Your task to perform on an android device: uninstall "Duolingo: language lessons" Image 0: 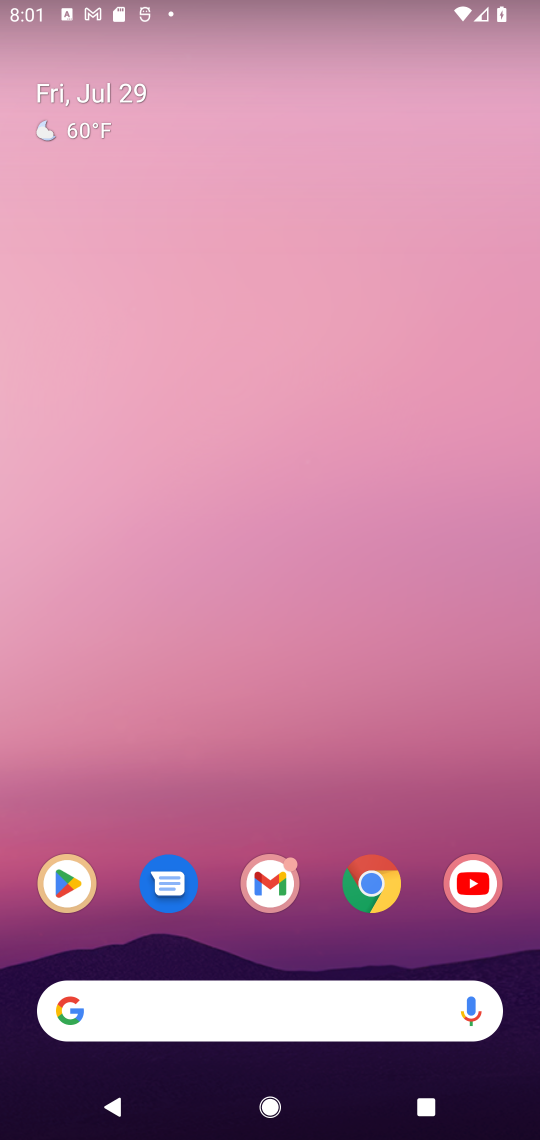
Step 0: click (69, 875)
Your task to perform on an android device: uninstall "Duolingo: language lessons" Image 1: 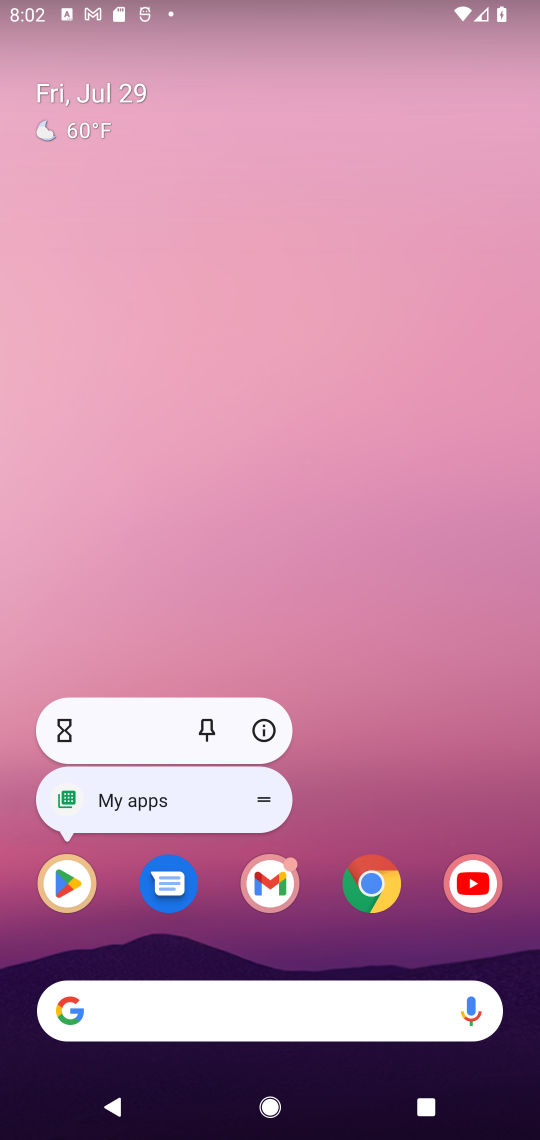
Step 1: click (75, 901)
Your task to perform on an android device: uninstall "Duolingo: language lessons" Image 2: 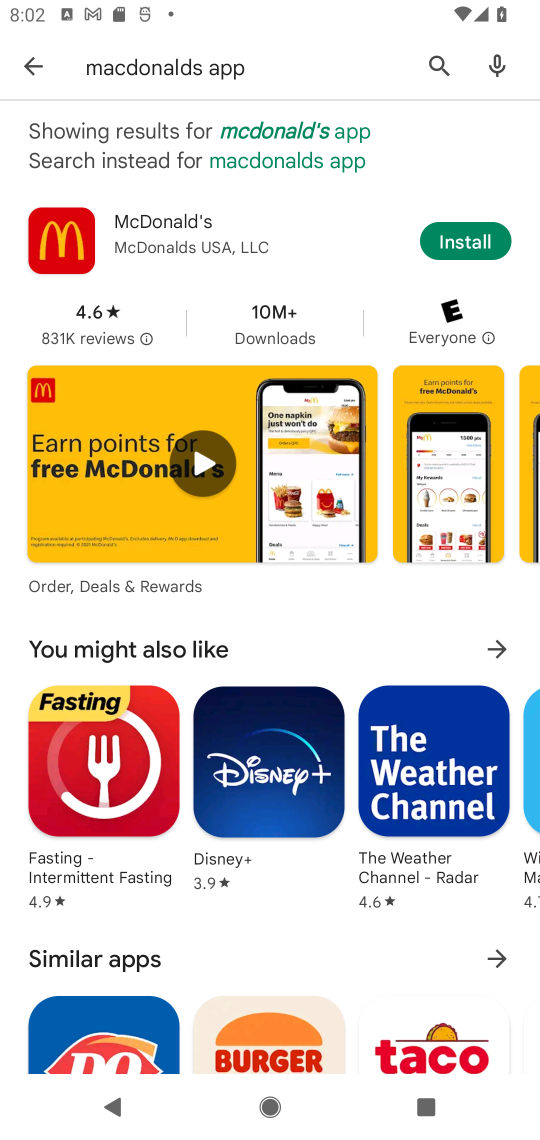
Step 2: click (435, 59)
Your task to perform on an android device: uninstall "Duolingo: language lessons" Image 3: 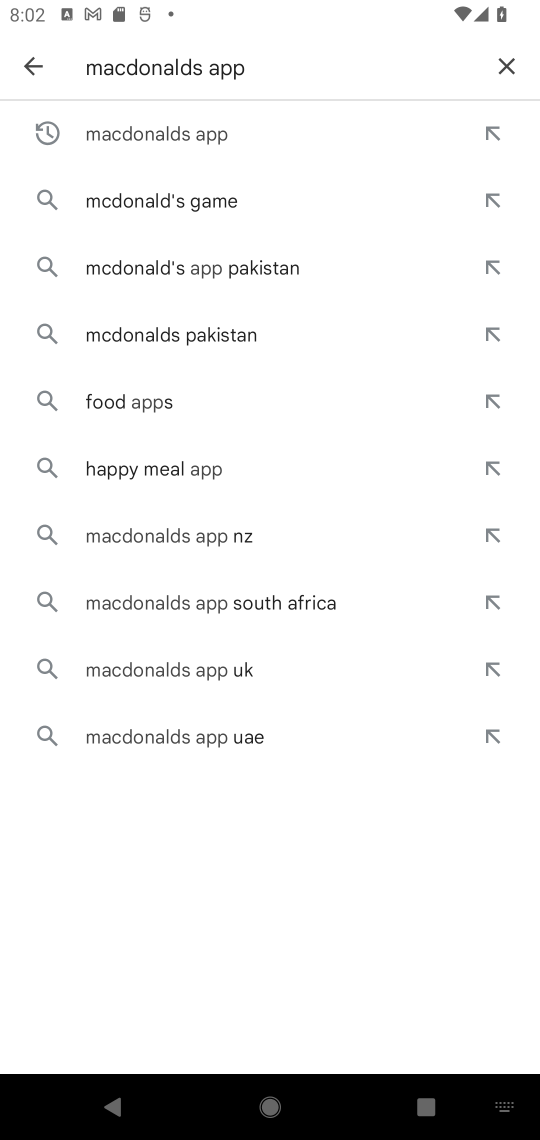
Step 3: click (513, 59)
Your task to perform on an android device: uninstall "Duolingo: language lessons" Image 4: 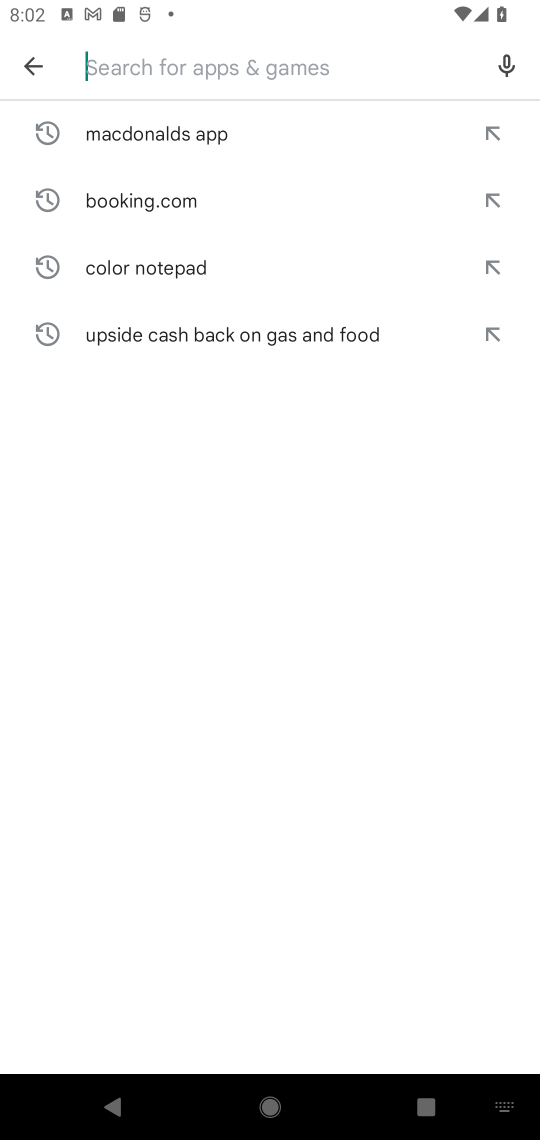
Step 4: click (185, 54)
Your task to perform on an android device: uninstall "Duolingo: language lessons" Image 5: 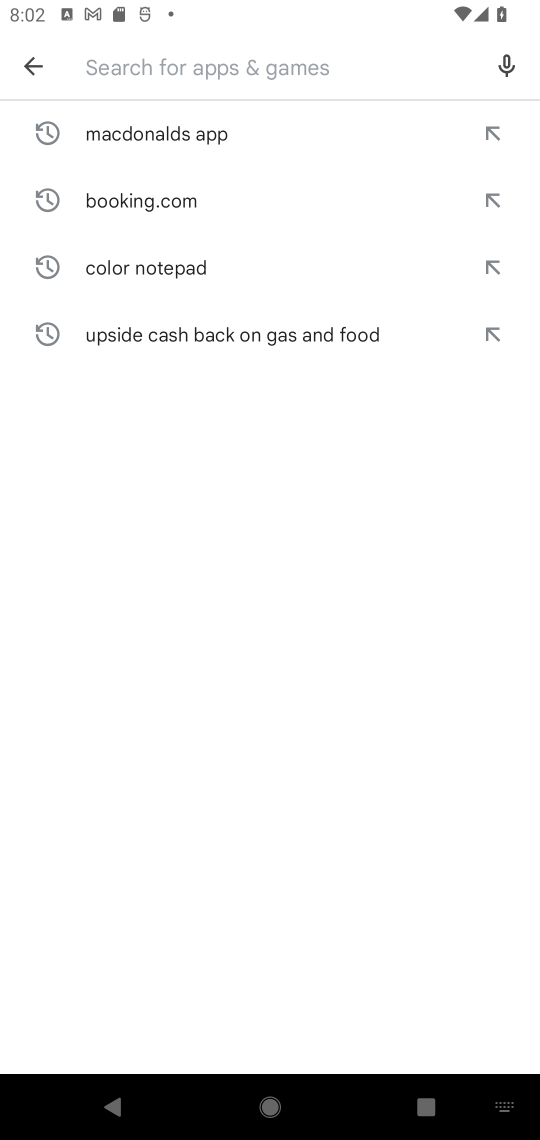
Step 5: type "duolinga"
Your task to perform on an android device: uninstall "Duolingo: language lessons" Image 6: 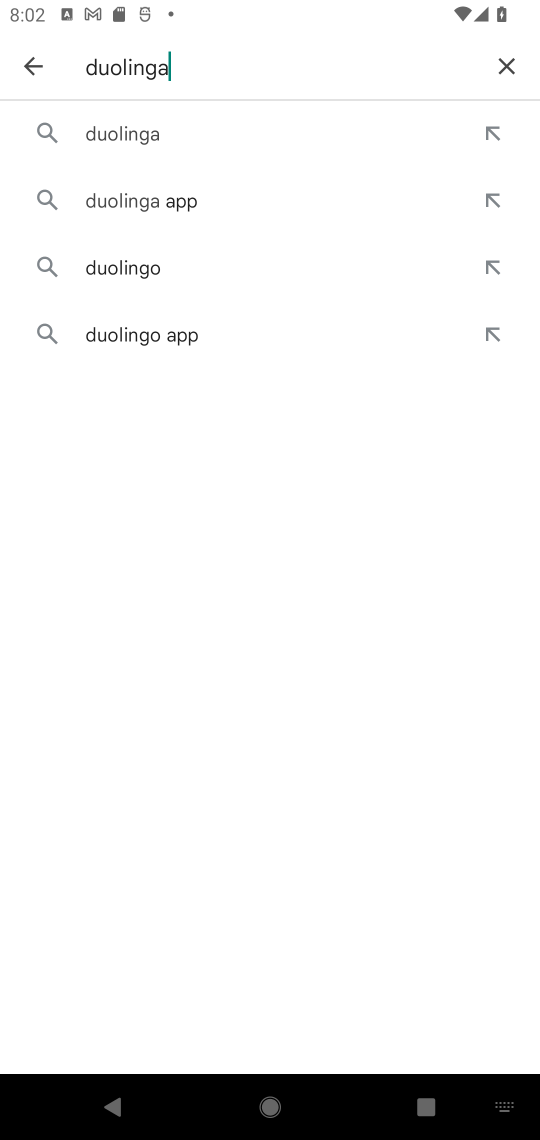
Step 6: click (132, 138)
Your task to perform on an android device: uninstall "Duolingo: language lessons" Image 7: 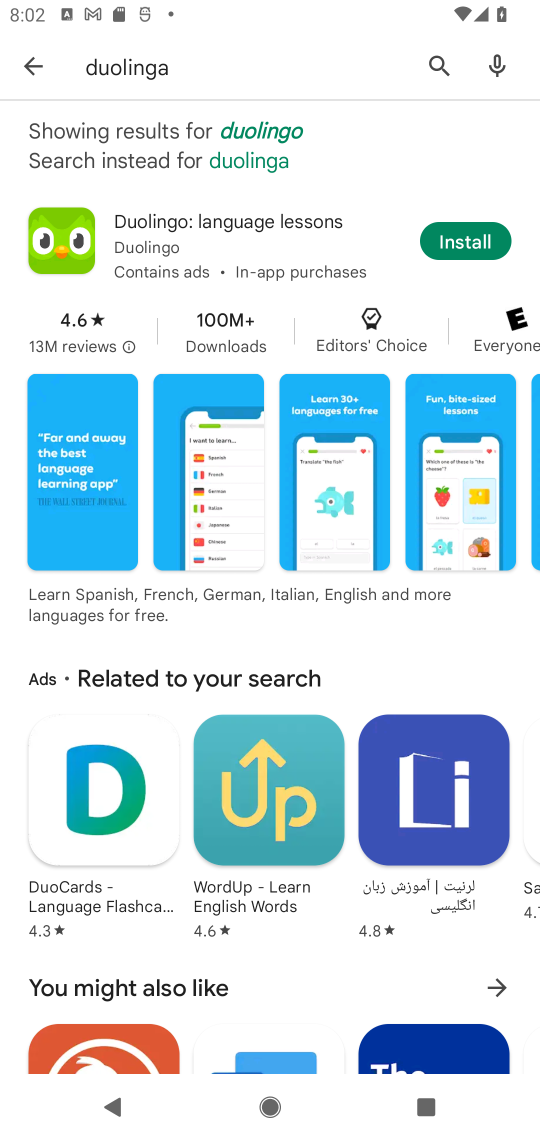
Step 7: click (176, 248)
Your task to perform on an android device: uninstall "Duolingo: language lessons" Image 8: 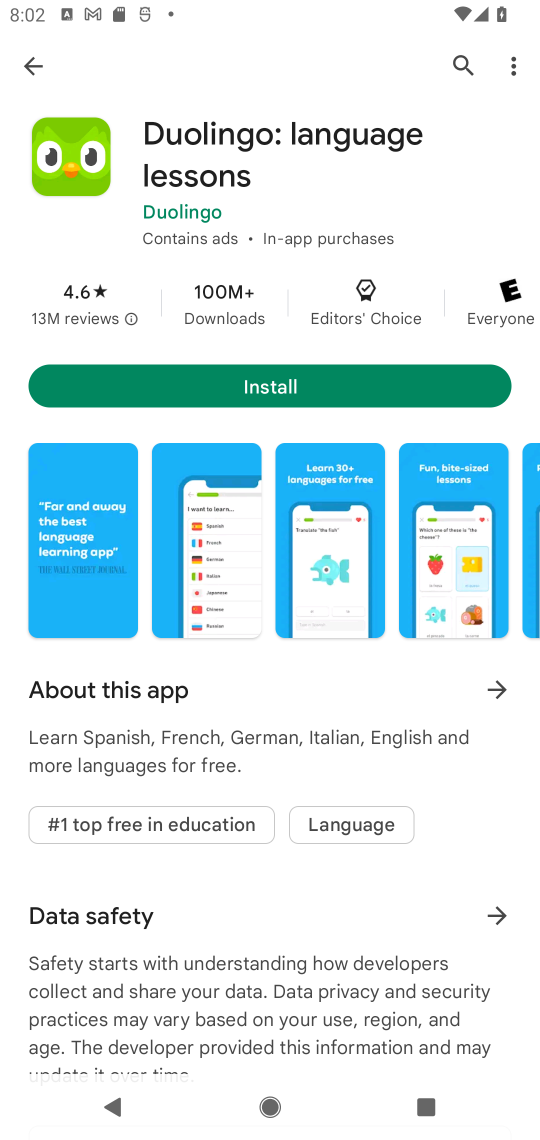
Step 8: task complete